Your task to perform on an android device: toggle translation in the chrome app Image 0: 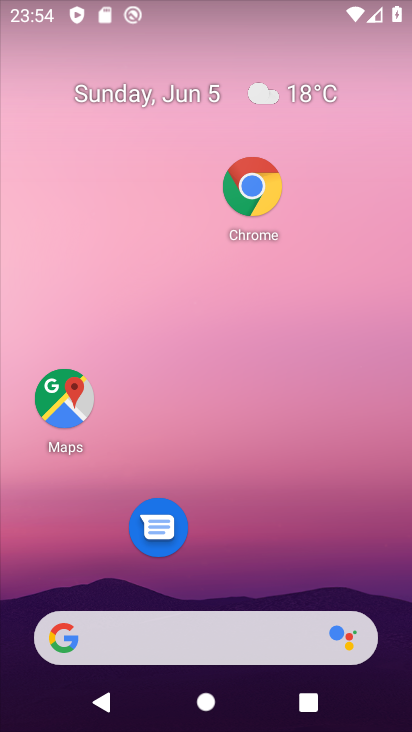
Step 0: click (248, 192)
Your task to perform on an android device: toggle translation in the chrome app Image 1: 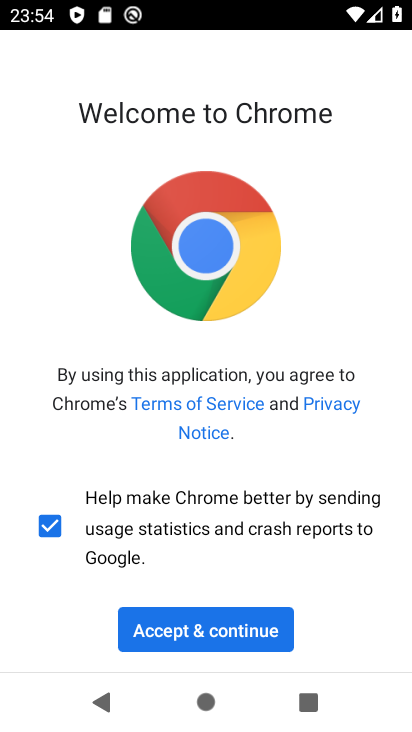
Step 1: click (238, 631)
Your task to perform on an android device: toggle translation in the chrome app Image 2: 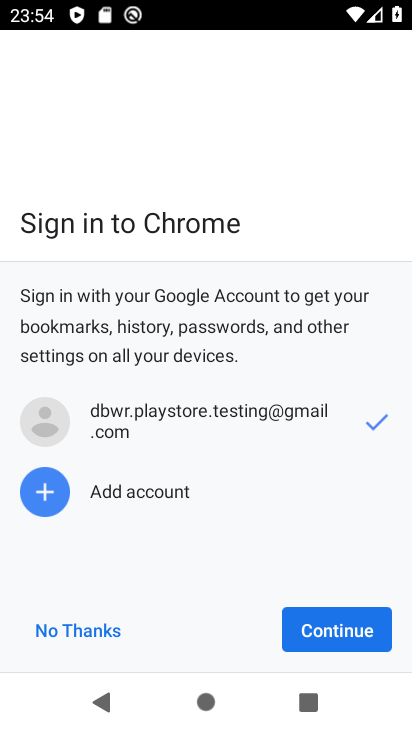
Step 2: click (209, 630)
Your task to perform on an android device: toggle translation in the chrome app Image 3: 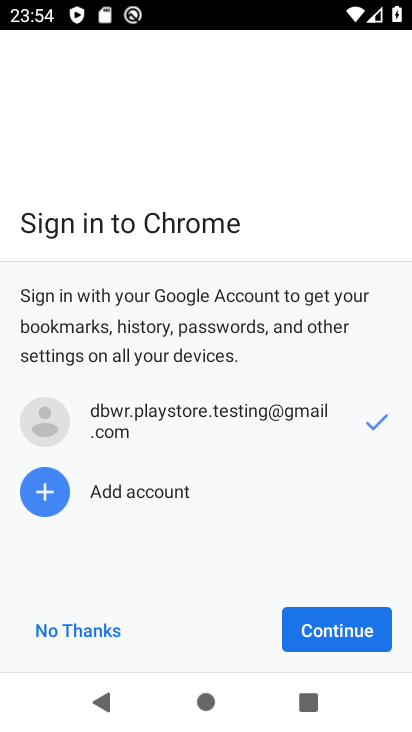
Step 3: click (352, 622)
Your task to perform on an android device: toggle translation in the chrome app Image 4: 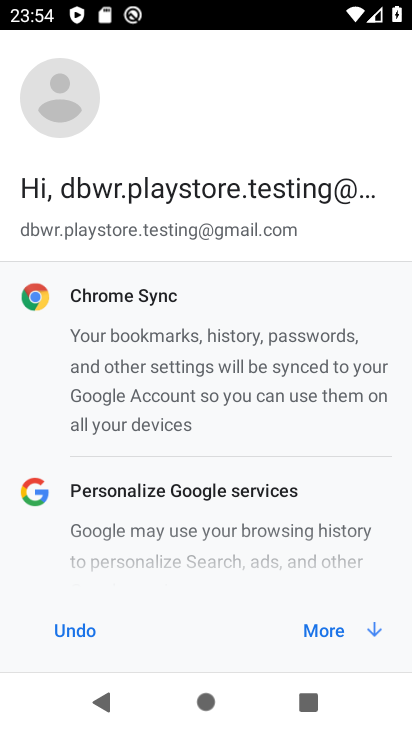
Step 4: click (327, 639)
Your task to perform on an android device: toggle translation in the chrome app Image 5: 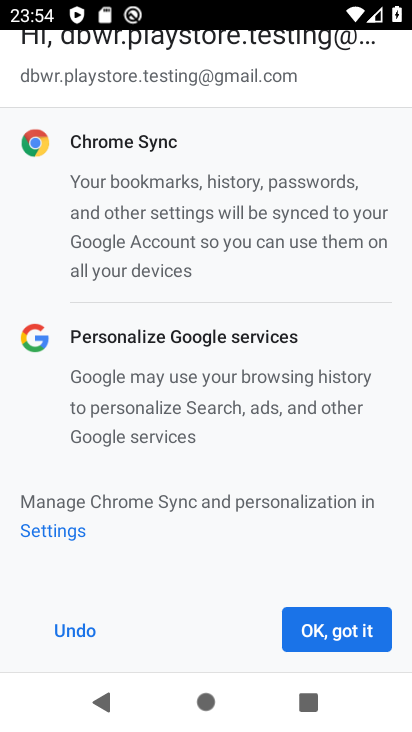
Step 5: click (326, 638)
Your task to perform on an android device: toggle translation in the chrome app Image 6: 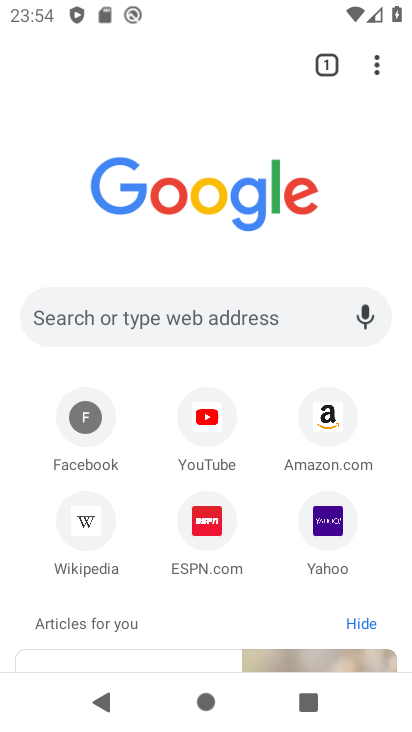
Step 6: click (373, 72)
Your task to perform on an android device: toggle translation in the chrome app Image 7: 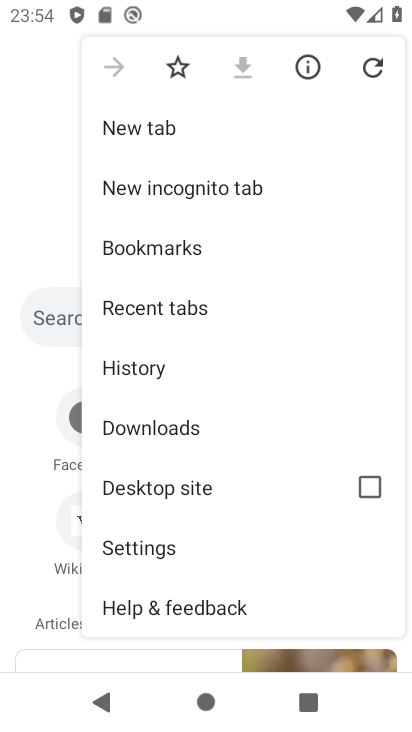
Step 7: click (146, 542)
Your task to perform on an android device: toggle translation in the chrome app Image 8: 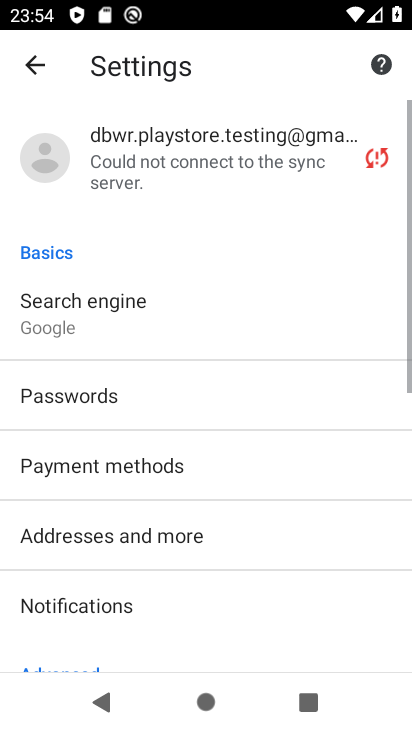
Step 8: drag from (195, 614) to (201, 139)
Your task to perform on an android device: toggle translation in the chrome app Image 9: 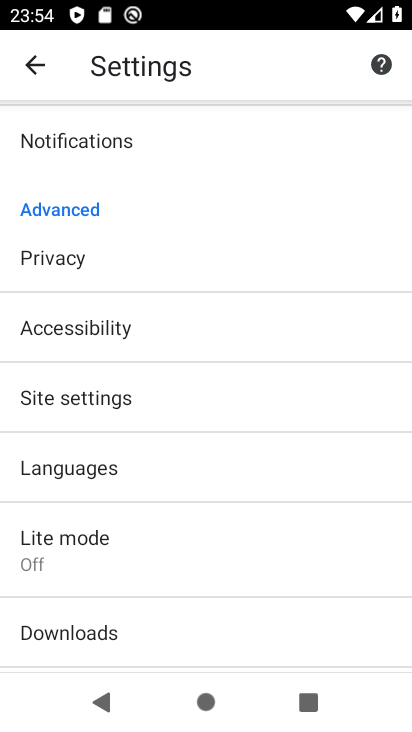
Step 9: click (101, 476)
Your task to perform on an android device: toggle translation in the chrome app Image 10: 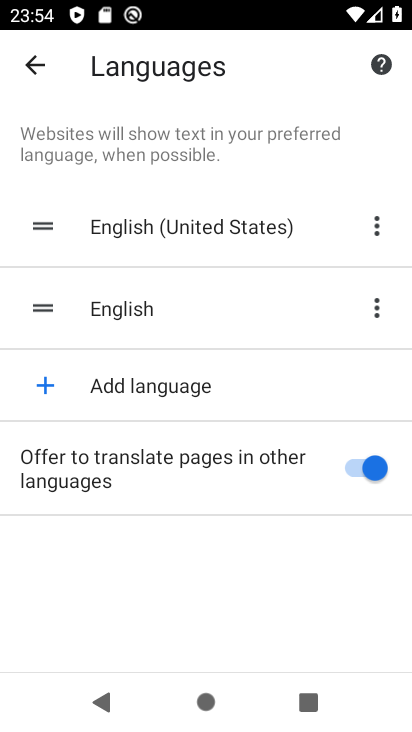
Step 10: click (352, 473)
Your task to perform on an android device: toggle translation in the chrome app Image 11: 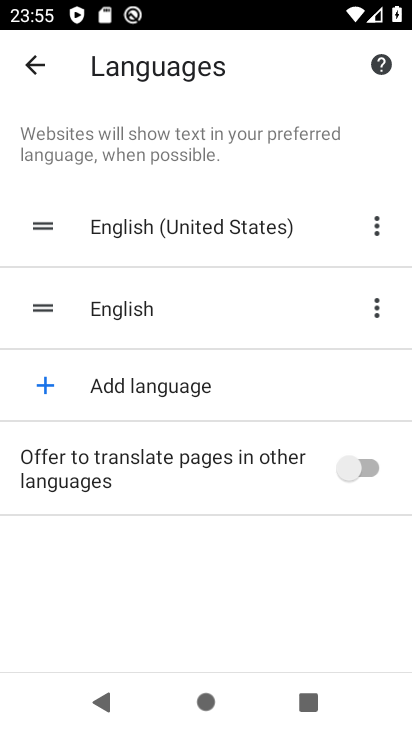
Step 11: task complete